Your task to perform on an android device: Open the calendar and show me this week's events Image 0: 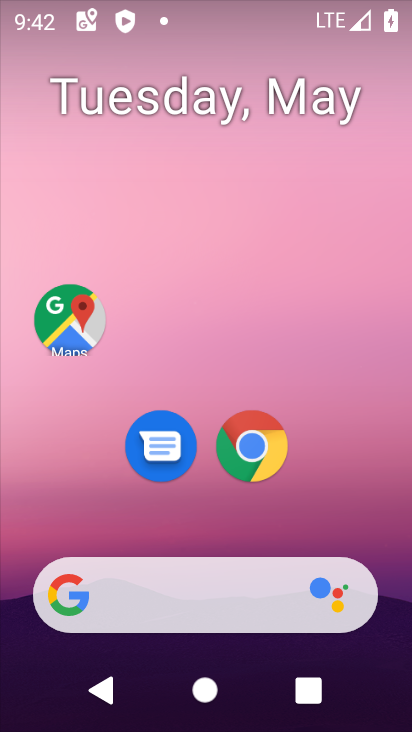
Step 0: drag from (201, 599) to (185, 211)
Your task to perform on an android device: Open the calendar and show me this week's events Image 1: 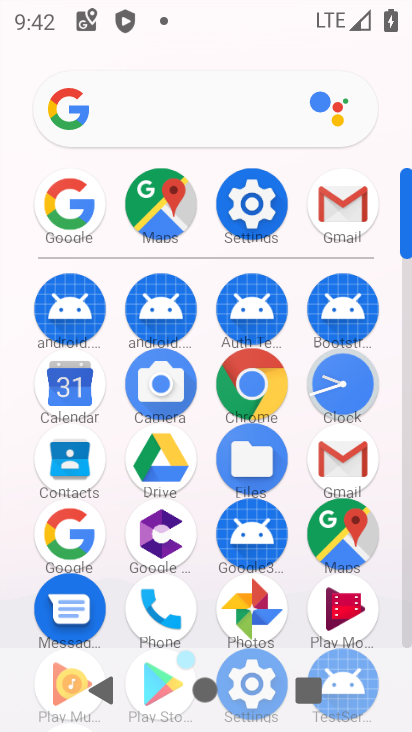
Step 1: click (63, 401)
Your task to perform on an android device: Open the calendar and show me this week's events Image 2: 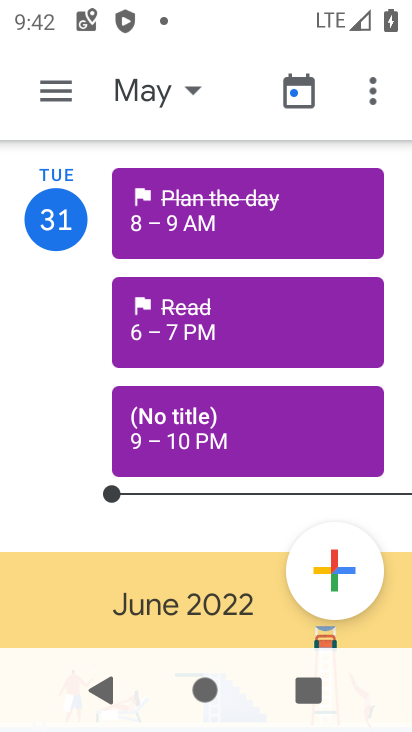
Step 2: click (61, 94)
Your task to perform on an android device: Open the calendar and show me this week's events Image 3: 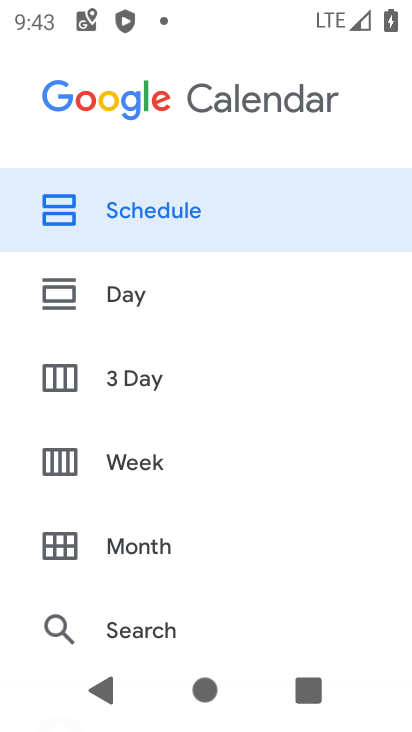
Step 3: click (142, 464)
Your task to perform on an android device: Open the calendar and show me this week's events Image 4: 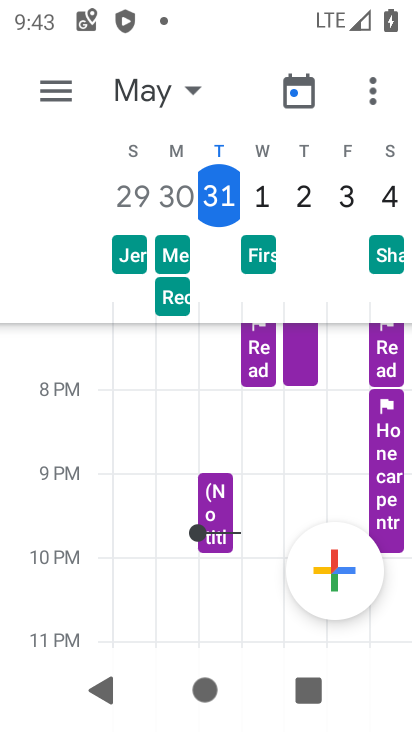
Step 4: task complete